Your task to perform on an android device: Open Google Image 0: 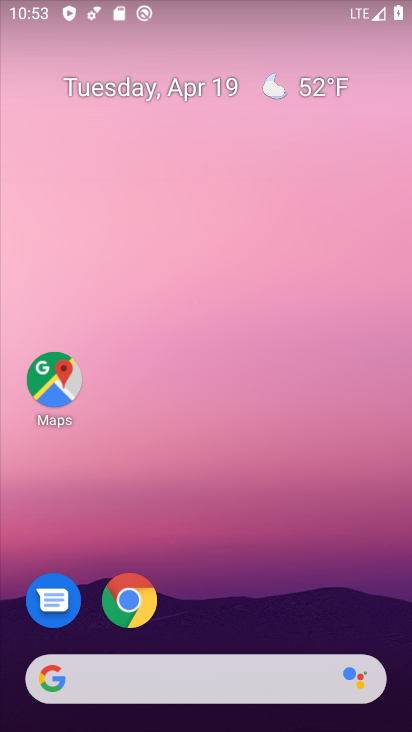
Step 0: drag from (228, 633) to (172, 201)
Your task to perform on an android device: Open Google Image 1: 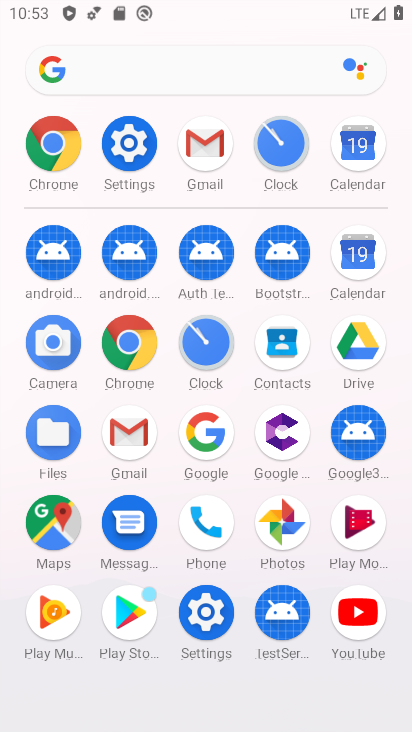
Step 1: click (196, 440)
Your task to perform on an android device: Open Google Image 2: 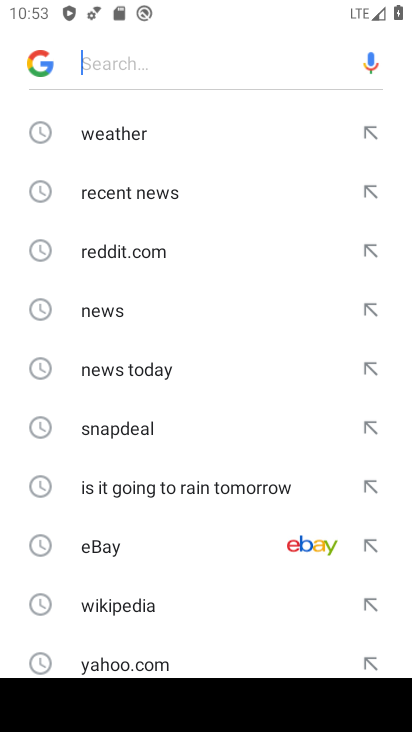
Step 2: task complete